Your task to perform on an android device: check battery use Image 0: 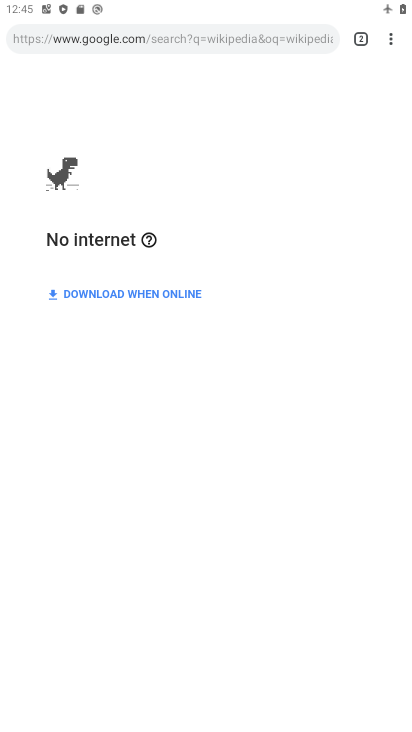
Step 0: press home button
Your task to perform on an android device: check battery use Image 1: 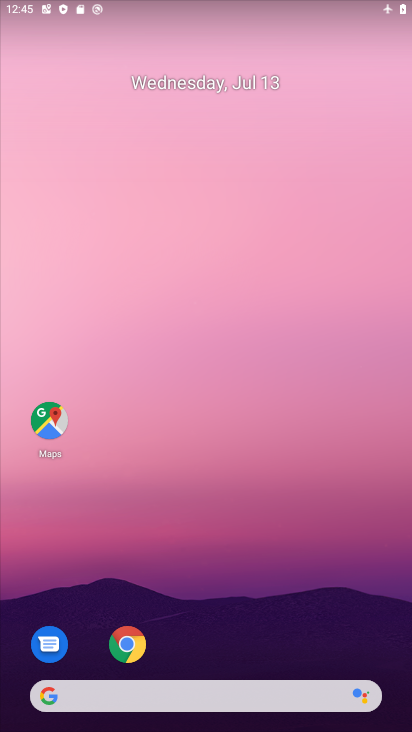
Step 1: drag from (299, 585) to (250, 58)
Your task to perform on an android device: check battery use Image 2: 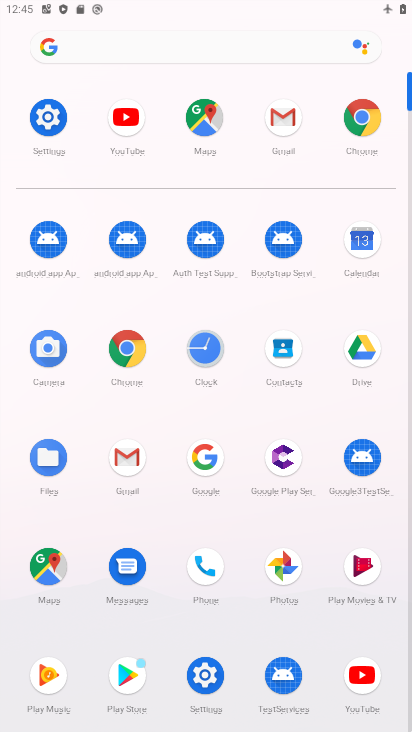
Step 2: click (51, 122)
Your task to perform on an android device: check battery use Image 3: 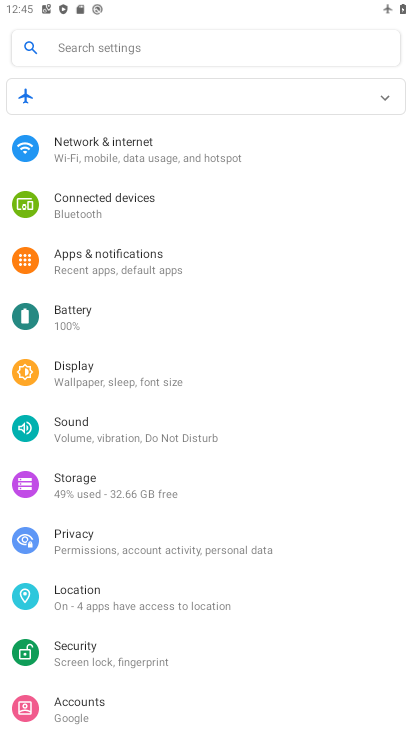
Step 3: click (72, 318)
Your task to perform on an android device: check battery use Image 4: 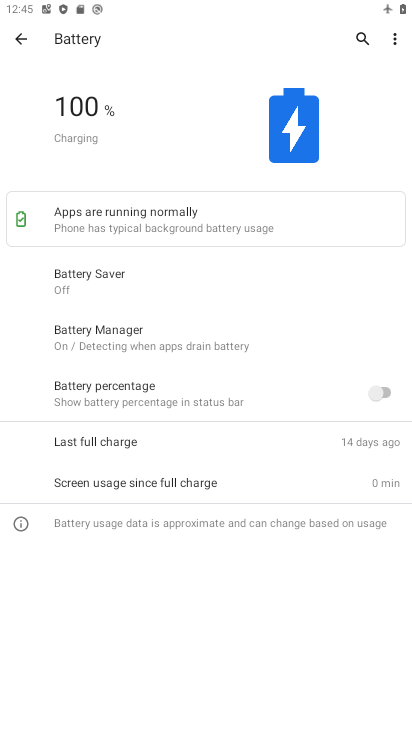
Step 4: click (401, 35)
Your task to perform on an android device: check battery use Image 5: 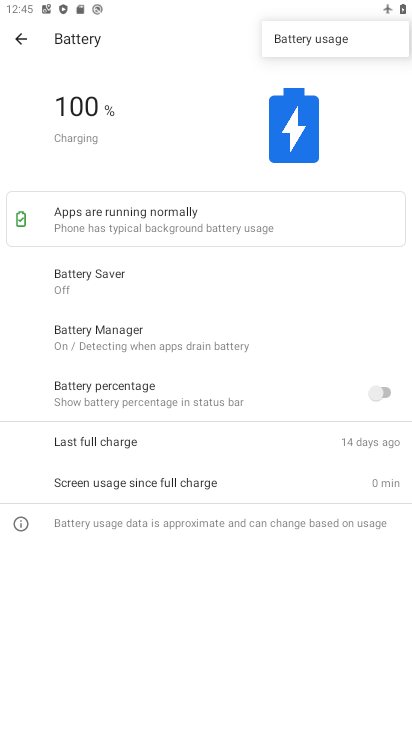
Step 5: click (338, 38)
Your task to perform on an android device: check battery use Image 6: 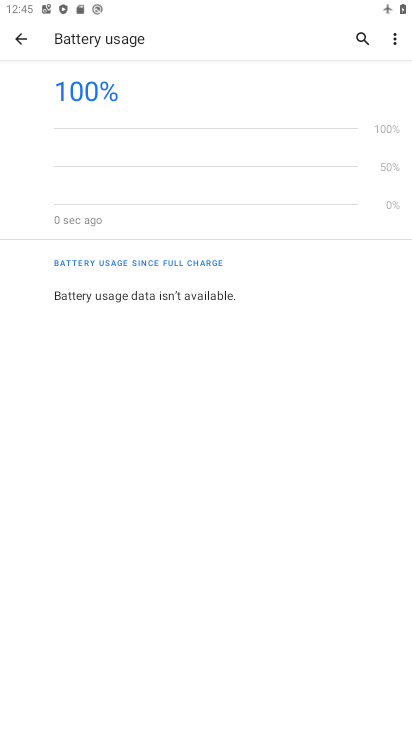
Step 6: task complete